Your task to perform on an android device: turn on the 12-hour format for clock Image 0: 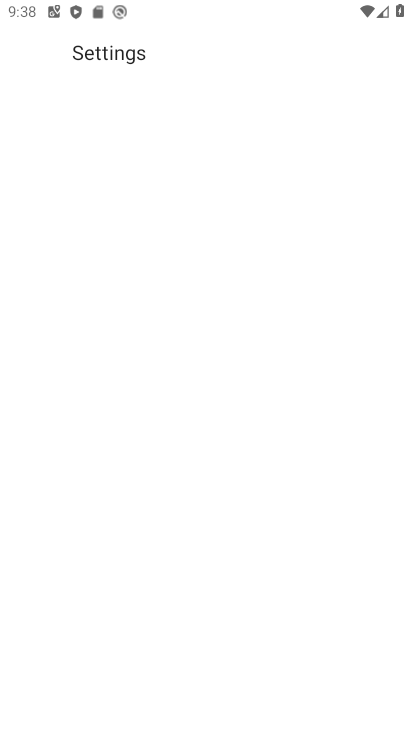
Step 0: drag from (251, 649) to (167, 165)
Your task to perform on an android device: turn on the 12-hour format for clock Image 1: 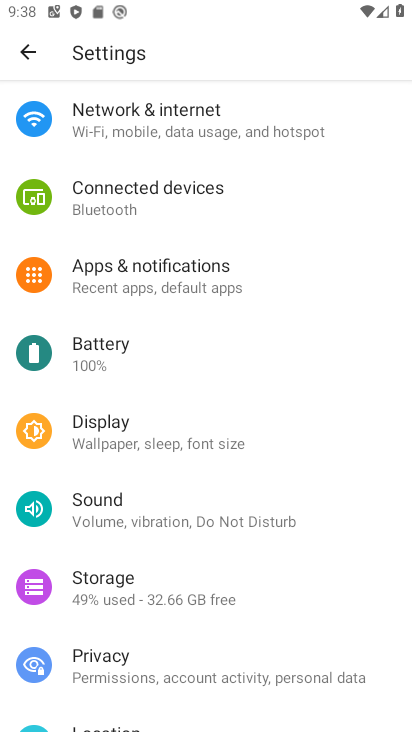
Step 1: press home button
Your task to perform on an android device: turn on the 12-hour format for clock Image 2: 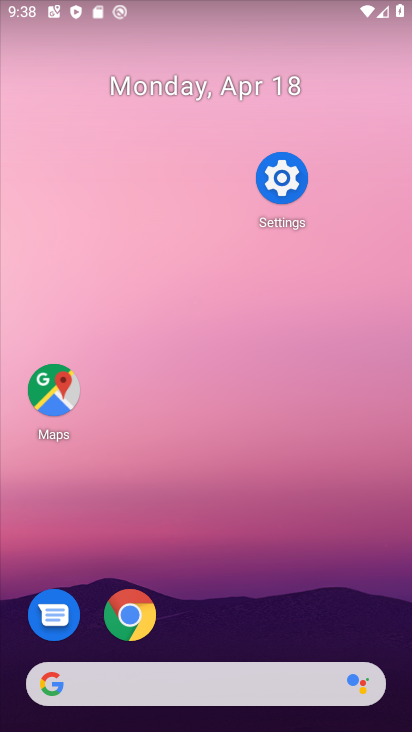
Step 2: drag from (291, 610) to (137, 183)
Your task to perform on an android device: turn on the 12-hour format for clock Image 3: 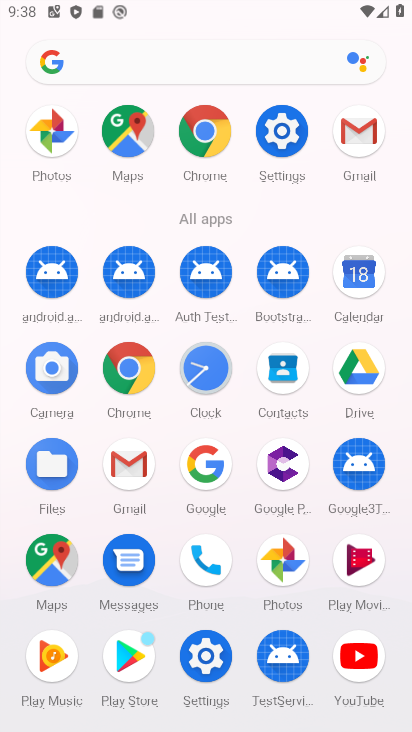
Step 3: click (201, 382)
Your task to perform on an android device: turn on the 12-hour format for clock Image 4: 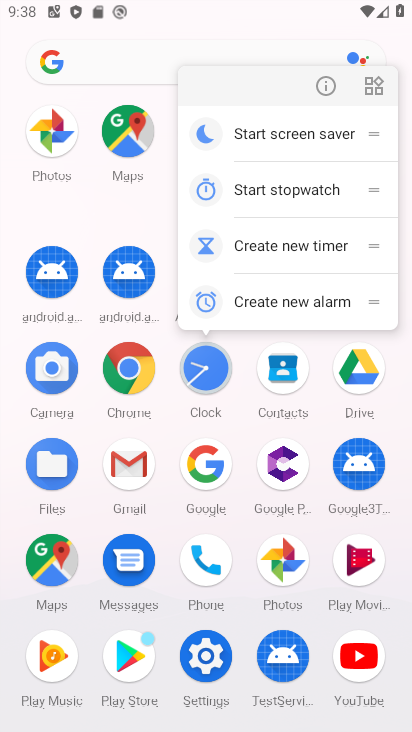
Step 4: click (201, 382)
Your task to perform on an android device: turn on the 12-hour format for clock Image 5: 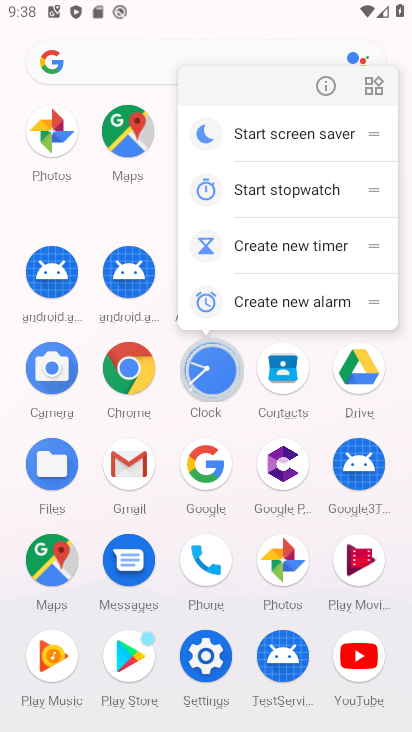
Step 5: click (216, 367)
Your task to perform on an android device: turn on the 12-hour format for clock Image 6: 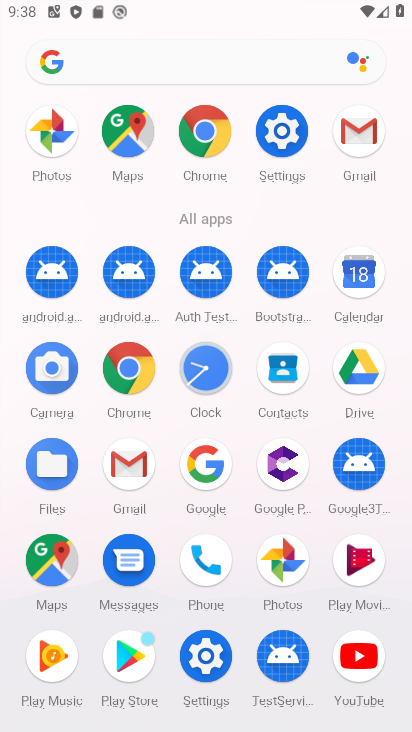
Step 6: click (218, 355)
Your task to perform on an android device: turn on the 12-hour format for clock Image 7: 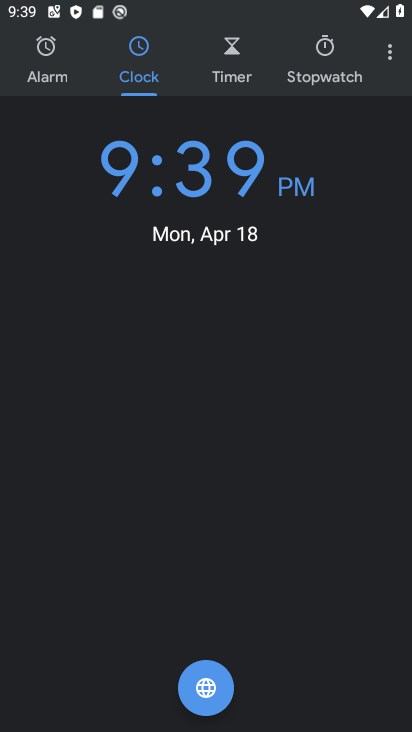
Step 7: click (386, 55)
Your task to perform on an android device: turn on the 12-hour format for clock Image 8: 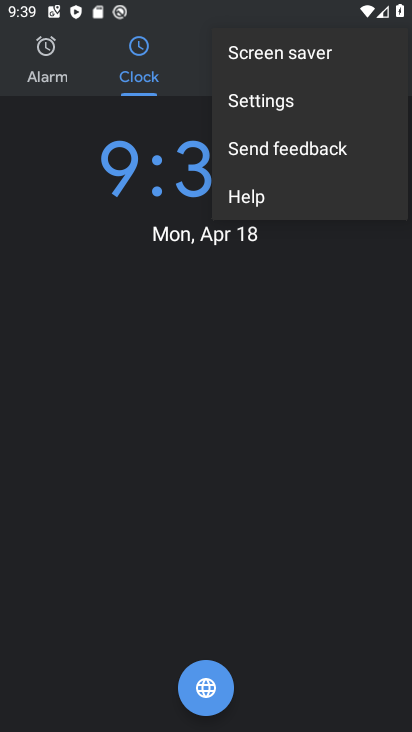
Step 8: click (246, 104)
Your task to perform on an android device: turn on the 12-hour format for clock Image 9: 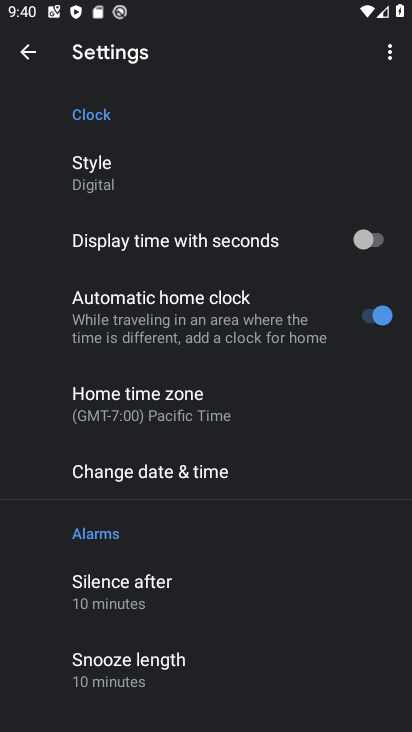
Step 9: click (138, 469)
Your task to perform on an android device: turn on the 12-hour format for clock Image 10: 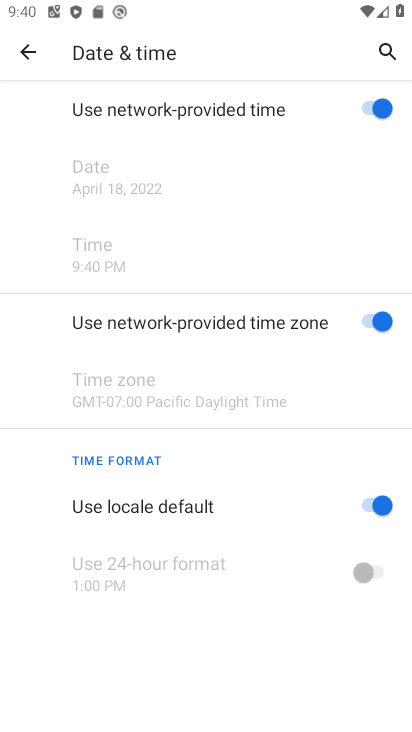
Step 10: task complete